Your task to perform on an android device: Add "apple airpods pro" to the cart on amazon.com, then select checkout. Image 0: 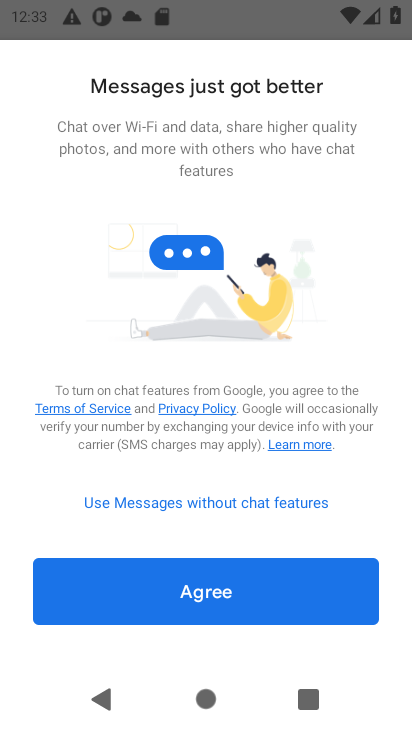
Step 0: press home button
Your task to perform on an android device: Add "apple airpods pro" to the cart on amazon.com, then select checkout. Image 1: 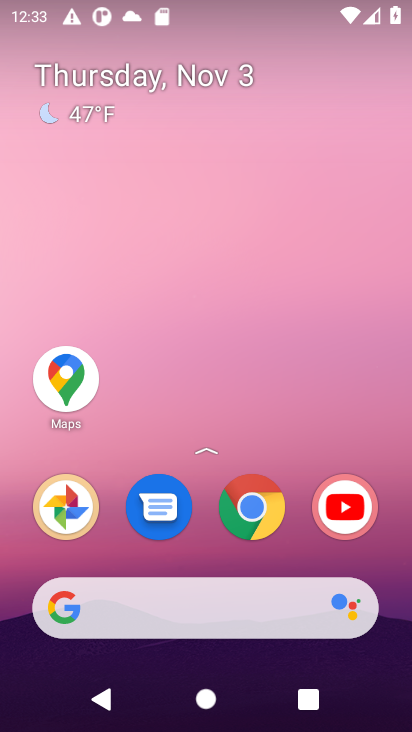
Step 1: click (242, 600)
Your task to perform on an android device: Add "apple airpods pro" to the cart on amazon.com, then select checkout. Image 2: 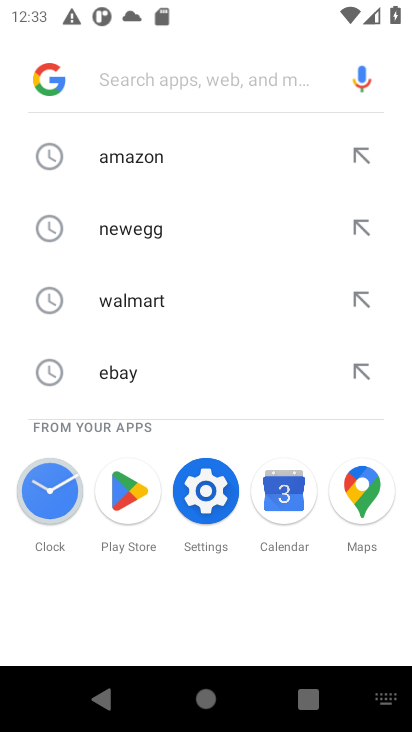
Step 2: click (204, 171)
Your task to perform on an android device: Add "apple airpods pro" to the cart on amazon.com, then select checkout. Image 3: 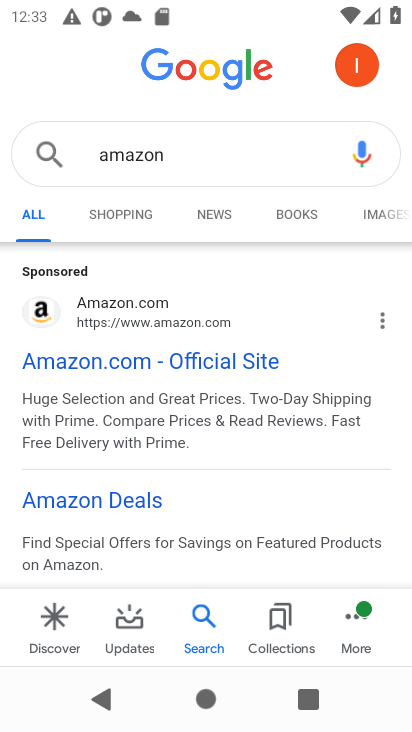
Step 3: click (109, 352)
Your task to perform on an android device: Add "apple airpods pro" to the cart on amazon.com, then select checkout. Image 4: 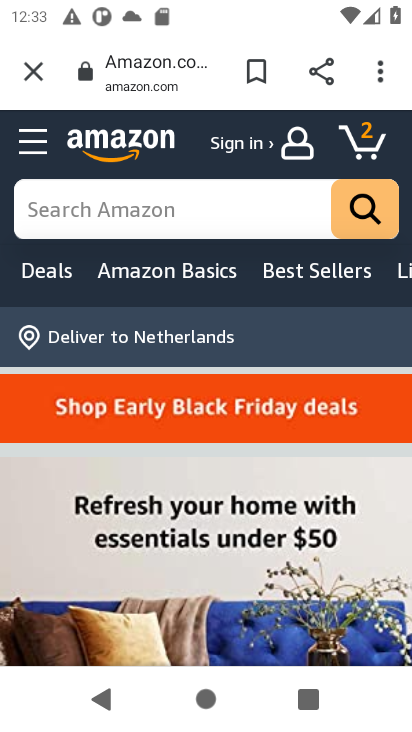
Step 4: click (177, 230)
Your task to perform on an android device: Add "apple airpods pro" to the cart on amazon.com, then select checkout. Image 5: 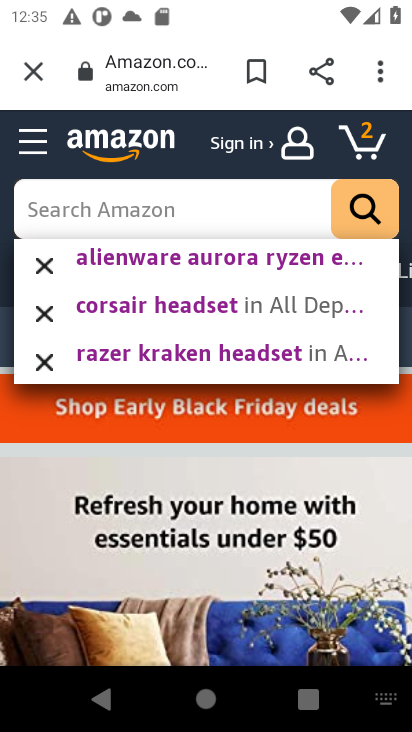
Step 5: task complete